Your task to perform on an android device: Toggle the flashlight Image 0: 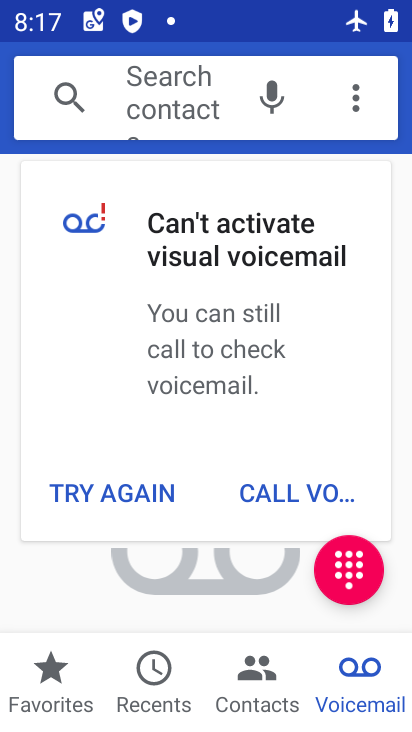
Step 0: press home button
Your task to perform on an android device: Toggle the flashlight Image 1: 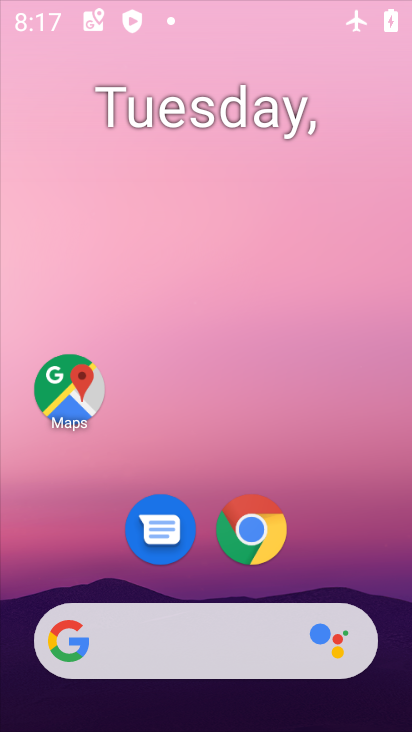
Step 1: task complete